Your task to perform on an android device: turn off notifications in google photos Image 0: 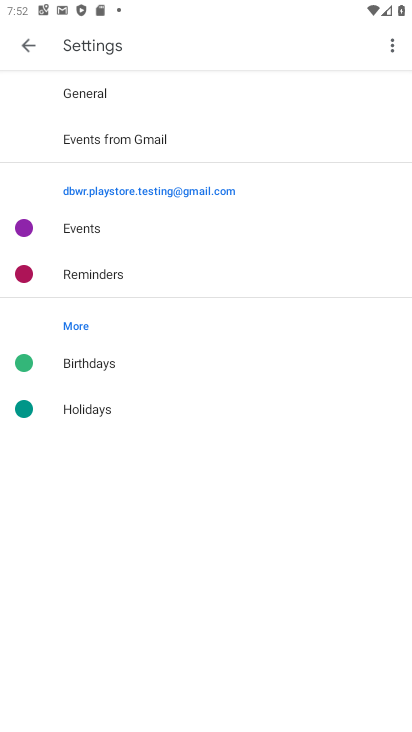
Step 0: press back button
Your task to perform on an android device: turn off notifications in google photos Image 1: 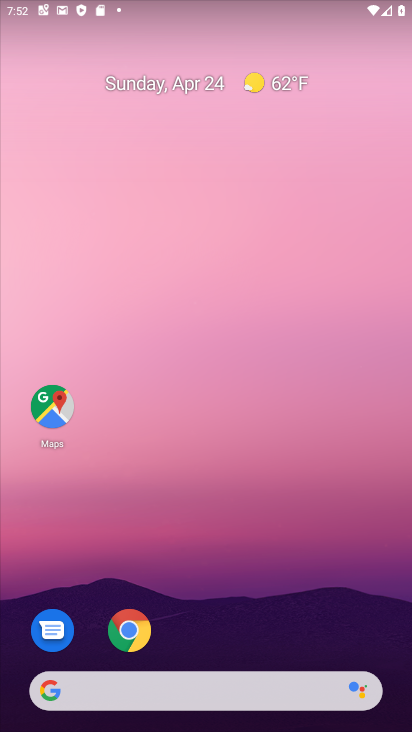
Step 1: drag from (240, 623) to (163, 0)
Your task to perform on an android device: turn off notifications in google photos Image 2: 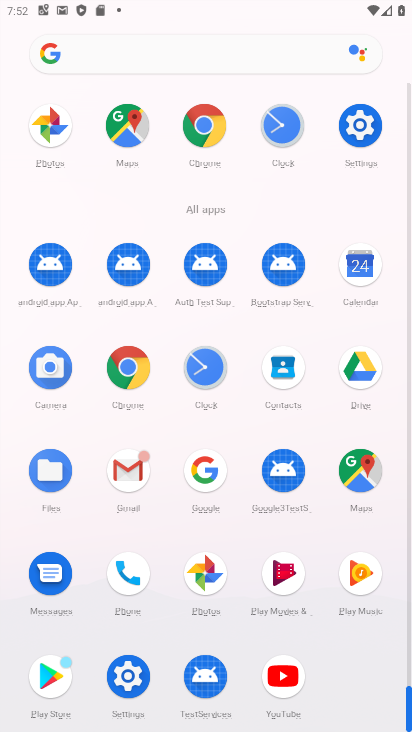
Step 2: click (208, 568)
Your task to perform on an android device: turn off notifications in google photos Image 3: 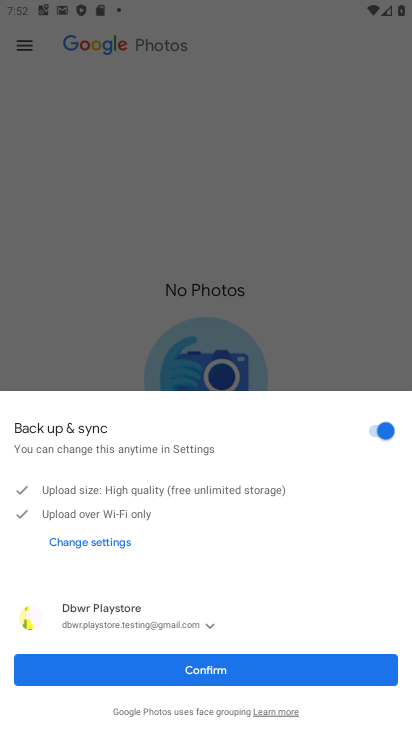
Step 3: click (197, 668)
Your task to perform on an android device: turn off notifications in google photos Image 4: 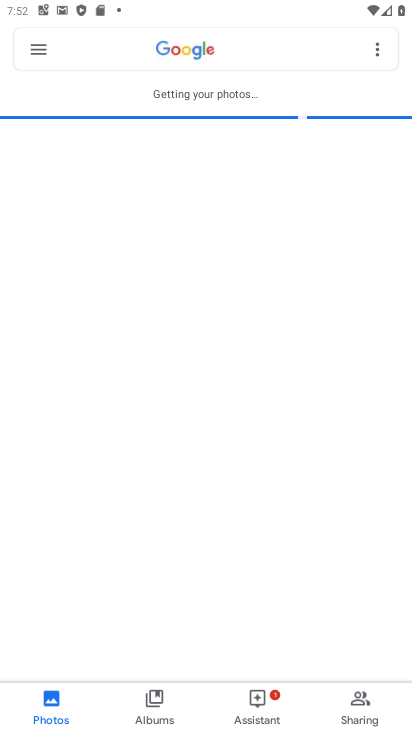
Step 4: click (44, 45)
Your task to perform on an android device: turn off notifications in google photos Image 5: 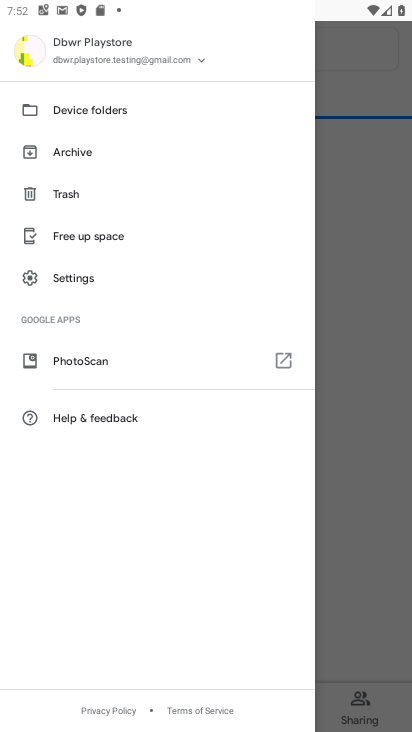
Step 5: click (68, 270)
Your task to perform on an android device: turn off notifications in google photos Image 6: 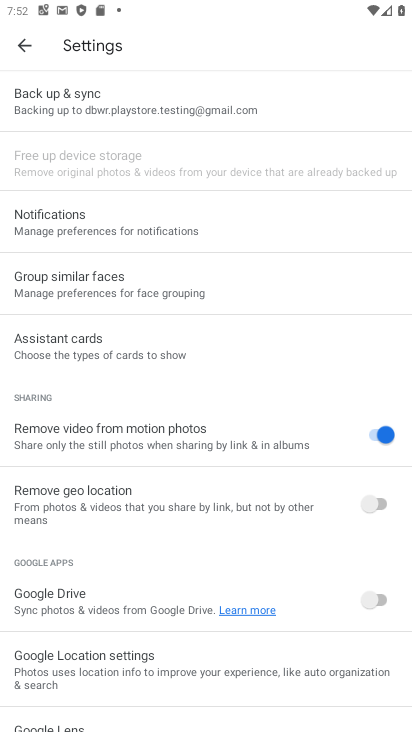
Step 6: click (211, 236)
Your task to perform on an android device: turn off notifications in google photos Image 7: 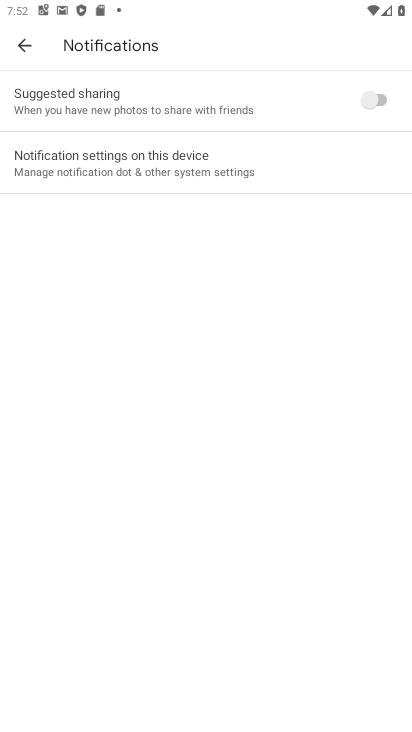
Step 7: click (211, 148)
Your task to perform on an android device: turn off notifications in google photos Image 8: 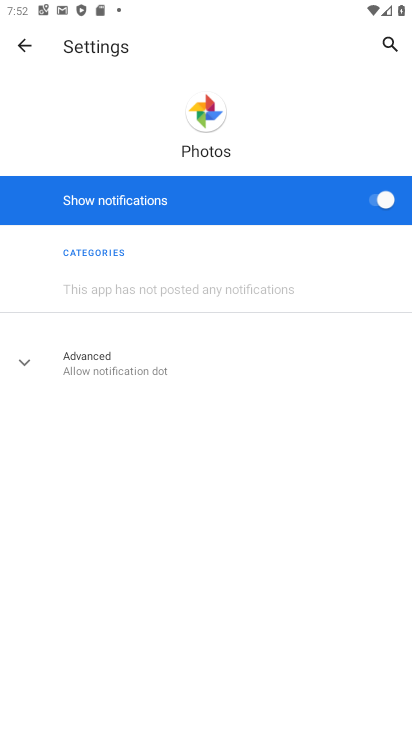
Step 8: click (375, 201)
Your task to perform on an android device: turn off notifications in google photos Image 9: 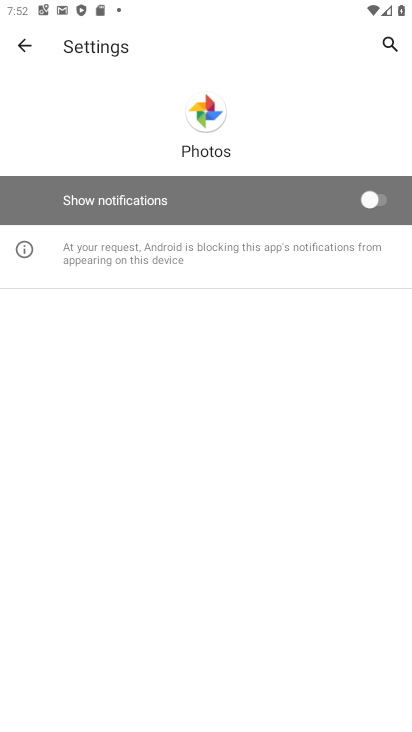
Step 9: task complete